Your task to perform on an android device: Open eBay Image 0: 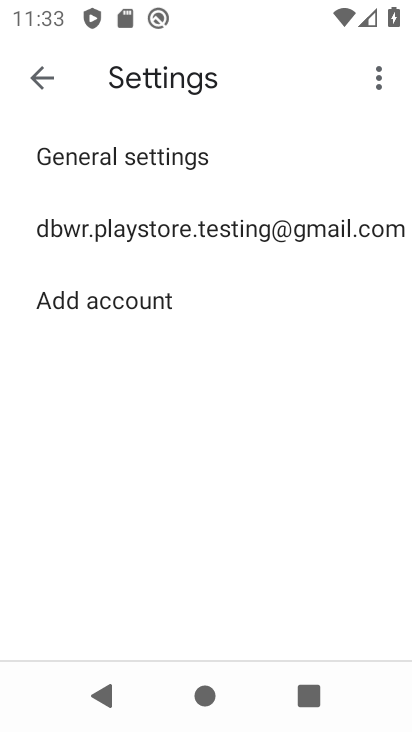
Step 0: press home button
Your task to perform on an android device: Open eBay Image 1: 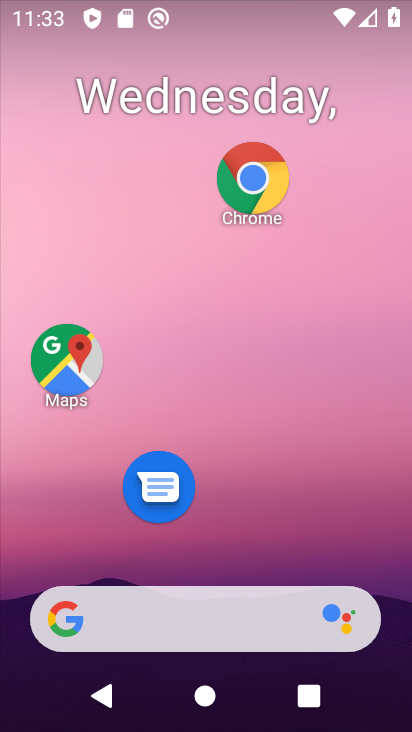
Step 1: click (249, 180)
Your task to perform on an android device: Open eBay Image 2: 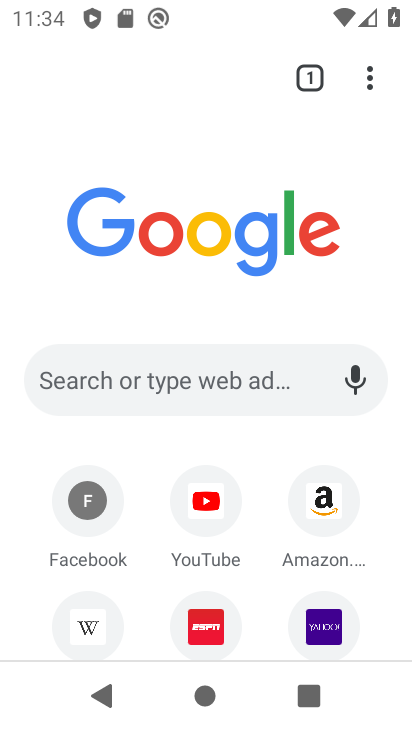
Step 2: click (243, 381)
Your task to perform on an android device: Open eBay Image 3: 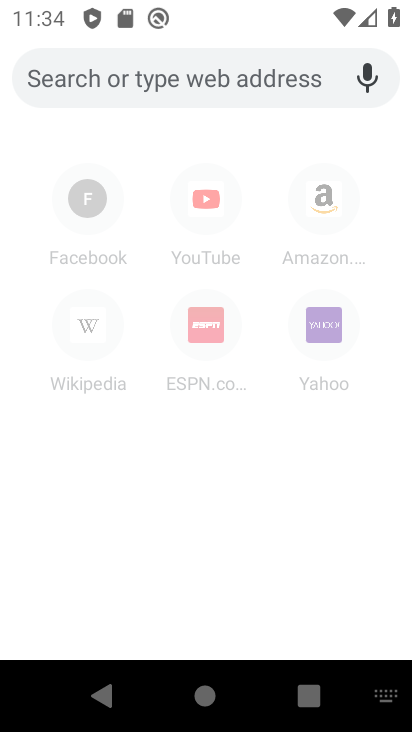
Step 3: type "ebay"
Your task to perform on an android device: Open eBay Image 4: 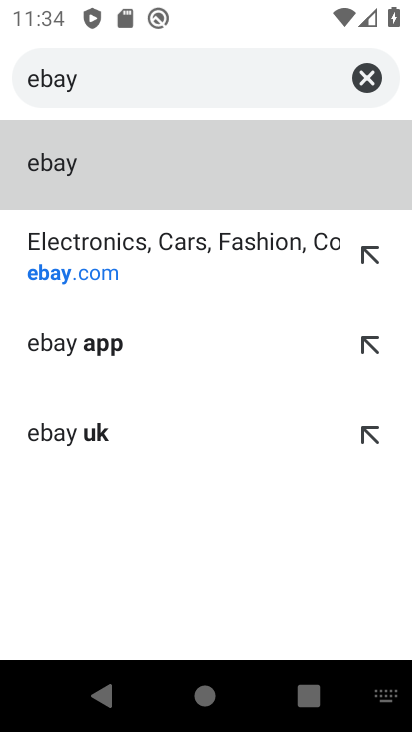
Step 4: click (112, 255)
Your task to perform on an android device: Open eBay Image 5: 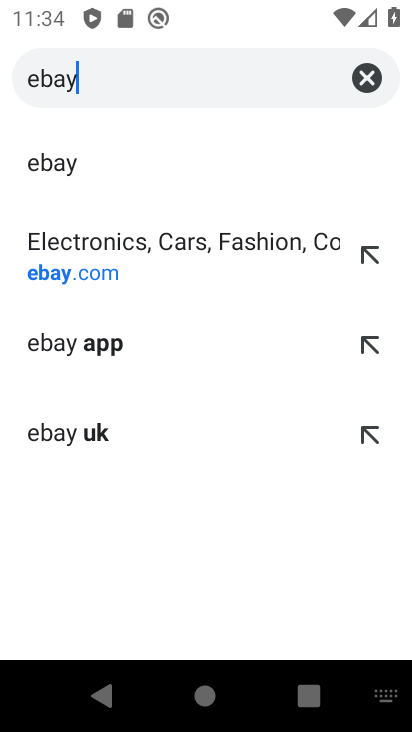
Step 5: click (118, 240)
Your task to perform on an android device: Open eBay Image 6: 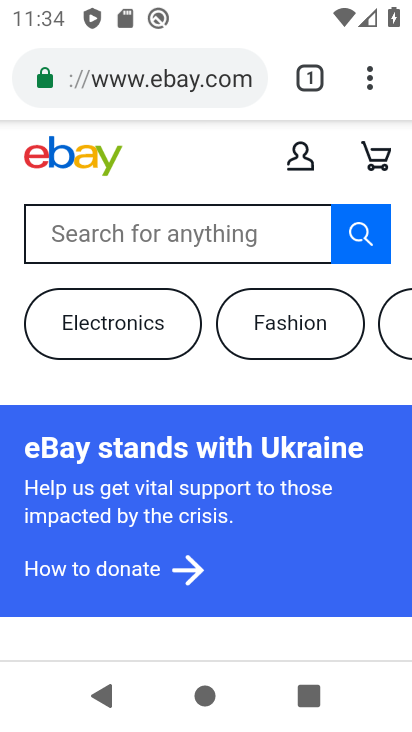
Step 6: task complete